Your task to perform on an android device: turn on improve location accuracy Image 0: 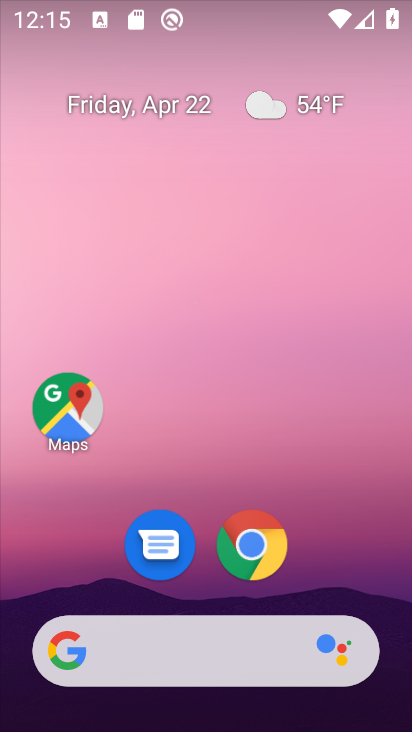
Step 0: drag from (222, 595) to (211, 266)
Your task to perform on an android device: turn on improve location accuracy Image 1: 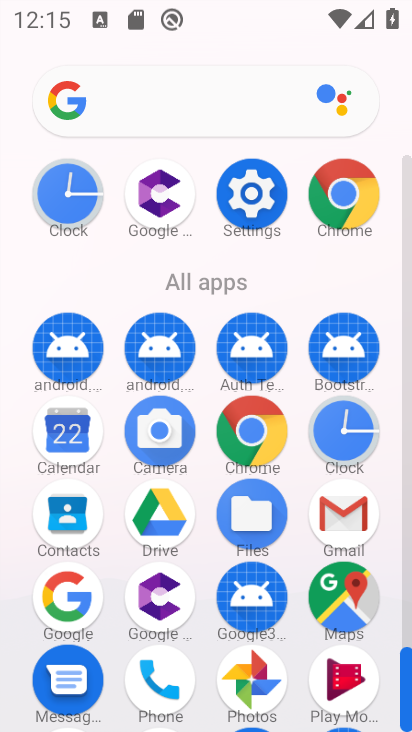
Step 1: click (237, 205)
Your task to perform on an android device: turn on improve location accuracy Image 2: 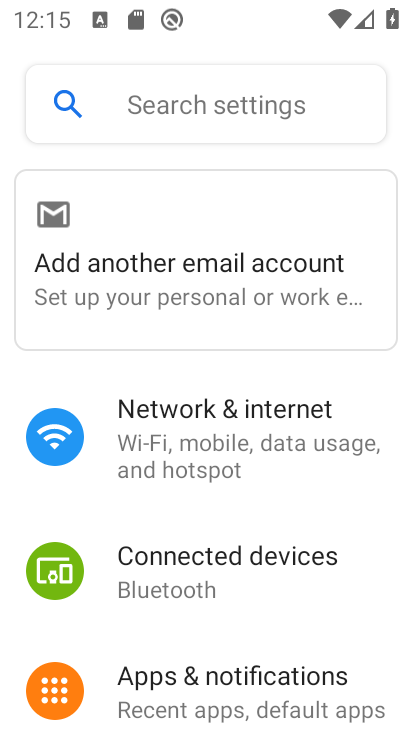
Step 2: drag from (218, 632) to (242, 309)
Your task to perform on an android device: turn on improve location accuracy Image 3: 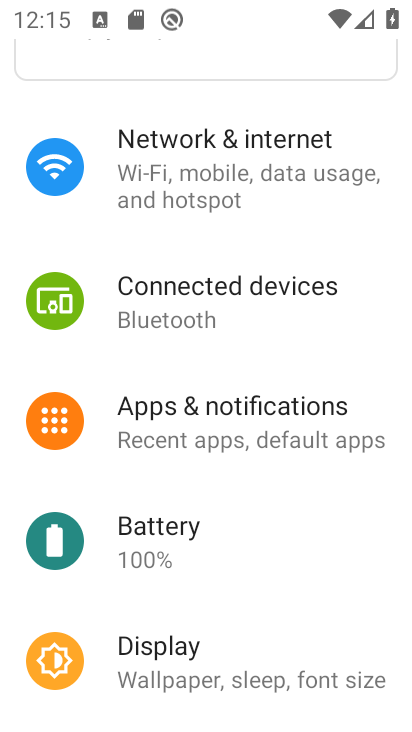
Step 3: drag from (245, 608) to (312, 344)
Your task to perform on an android device: turn on improve location accuracy Image 4: 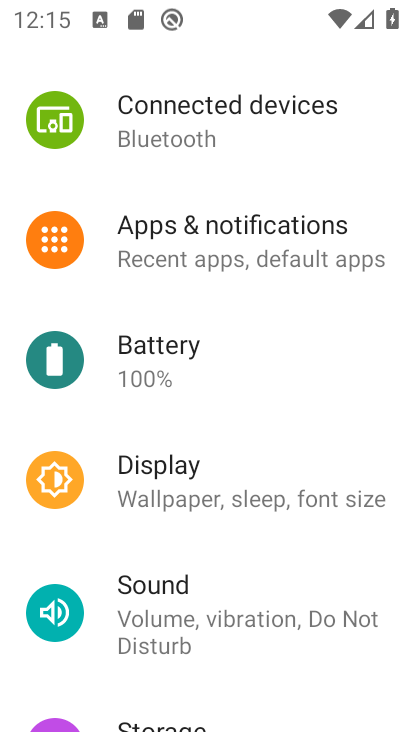
Step 4: drag from (241, 614) to (295, 298)
Your task to perform on an android device: turn on improve location accuracy Image 5: 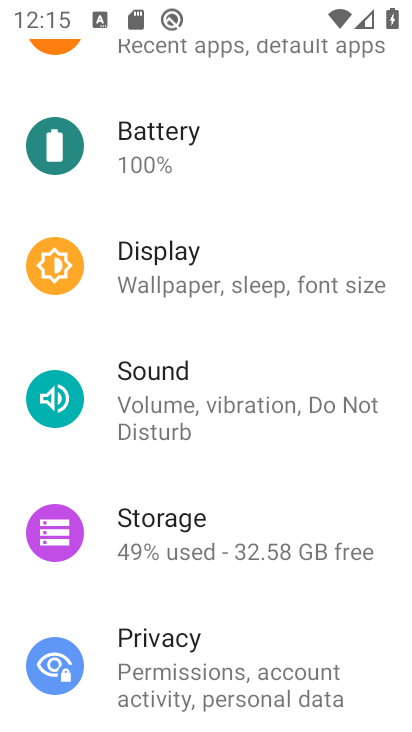
Step 5: drag from (275, 629) to (302, 350)
Your task to perform on an android device: turn on improve location accuracy Image 6: 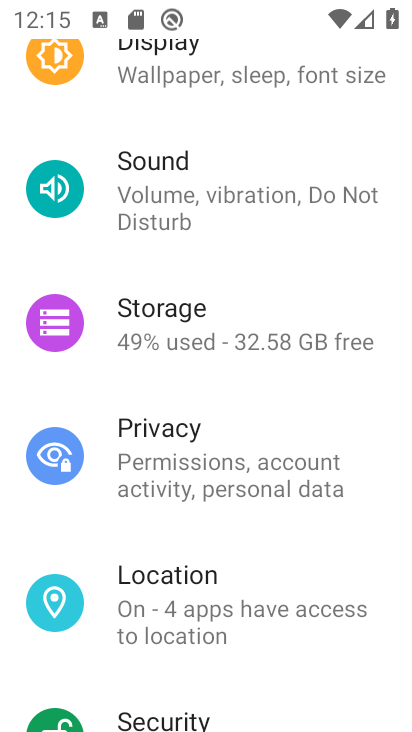
Step 6: click (215, 600)
Your task to perform on an android device: turn on improve location accuracy Image 7: 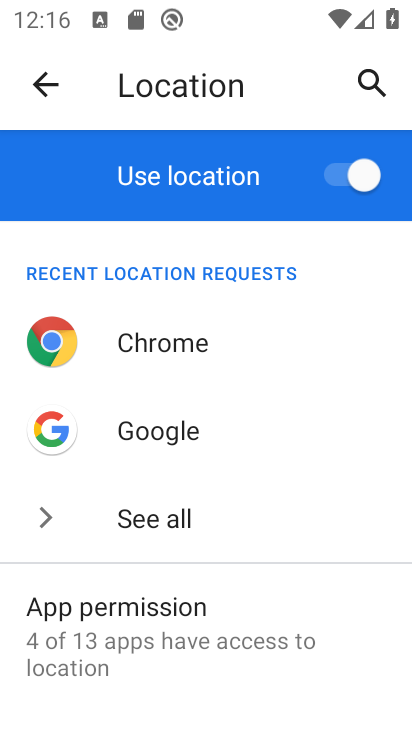
Step 7: drag from (271, 625) to (272, 279)
Your task to perform on an android device: turn on improve location accuracy Image 8: 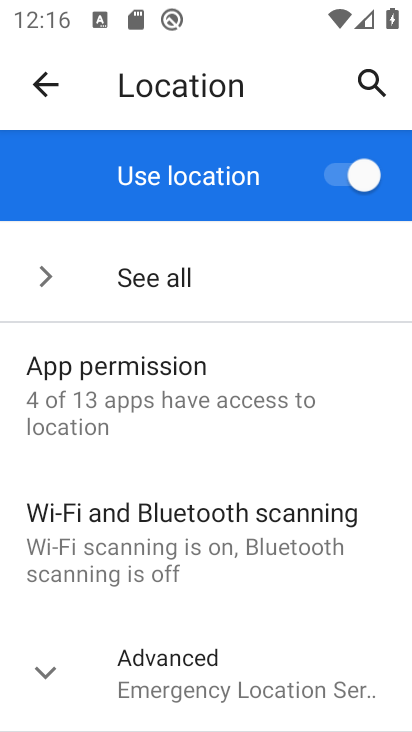
Step 8: click (206, 676)
Your task to perform on an android device: turn on improve location accuracy Image 9: 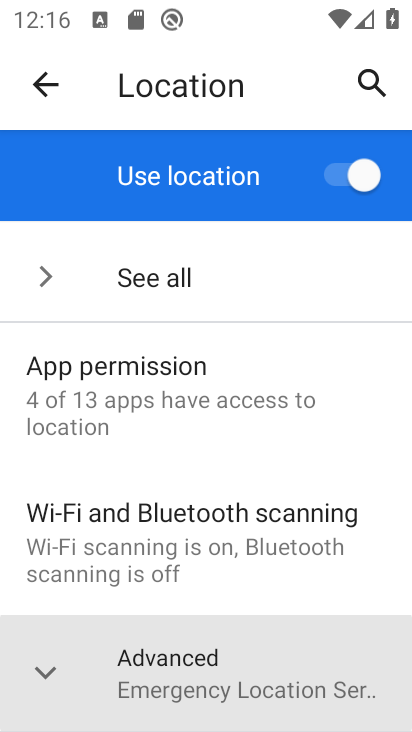
Step 9: task complete